Your task to perform on an android device: What's the weather? Image 0: 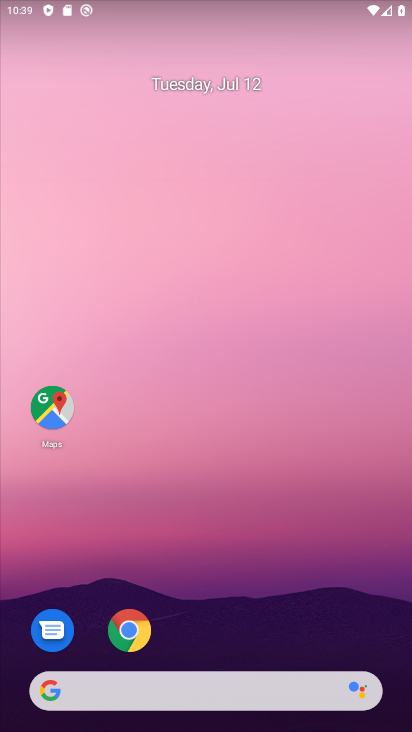
Step 0: drag from (396, 658) to (197, 31)
Your task to perform on an android device: What's the weather? Image 1: 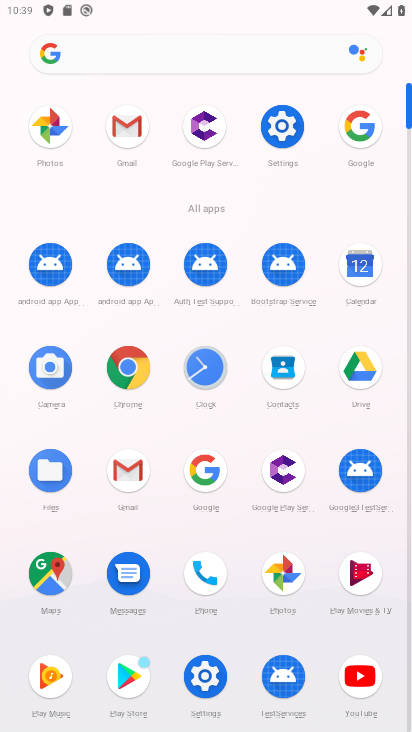
Step 1: click (200, 462)
Your task to perform on an android device: What's the weather? Image 2: 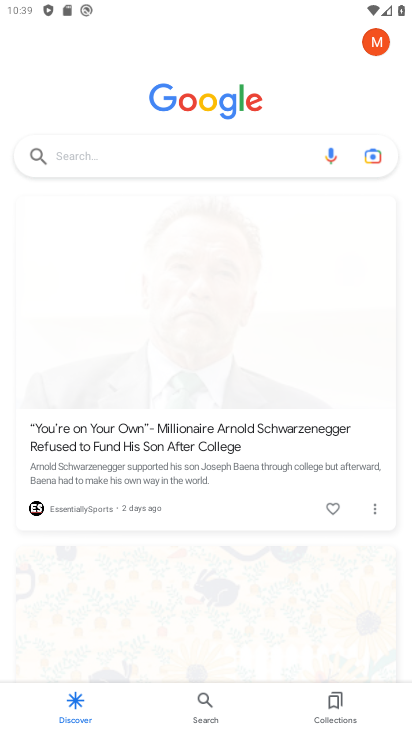
Step 2: click (138, 164)
Your task to perform on an android device: What's the weather? Image 3: 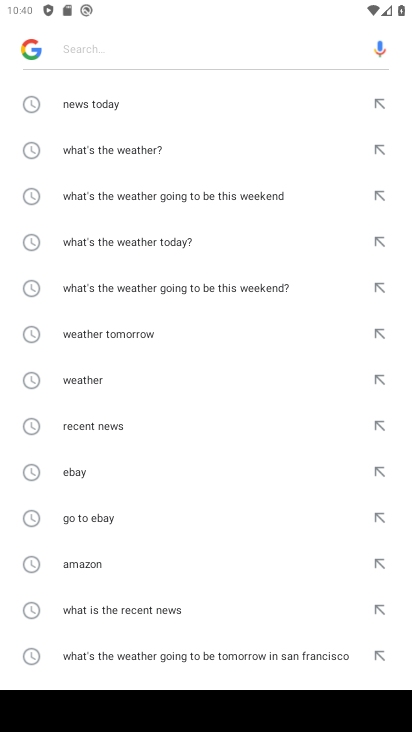
Step 3: click (90, 148)
Your task to perform on an android device: What's the weather? Image 4: 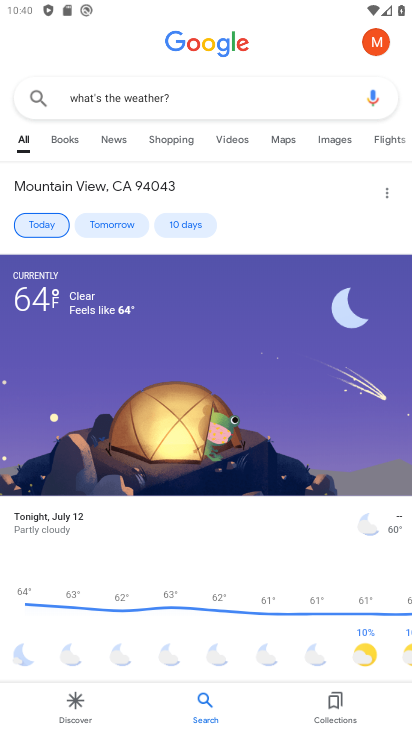
Step 4: task complete